Your task to perform on an android device: set the timer Image 0: 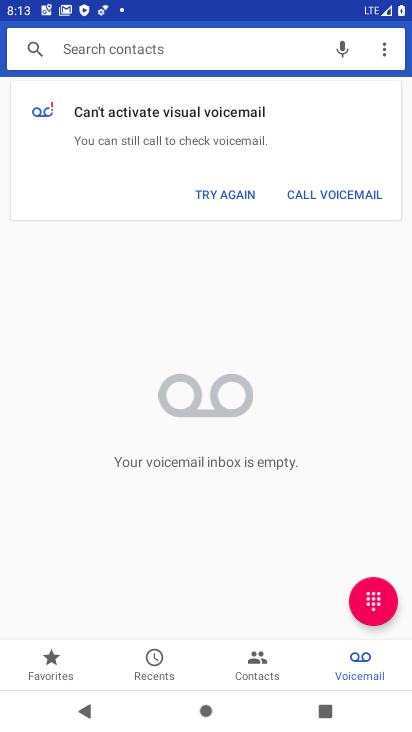
Step 0: press home button
Your task to perform on an android device: set the timer Image 1: 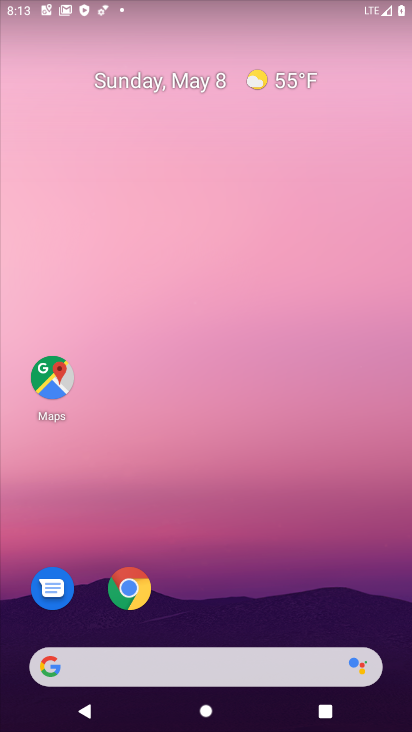
Step 1: drag from (334, 606) to (267, 61)
Your task to perform on an android device: set the timer Image 2: 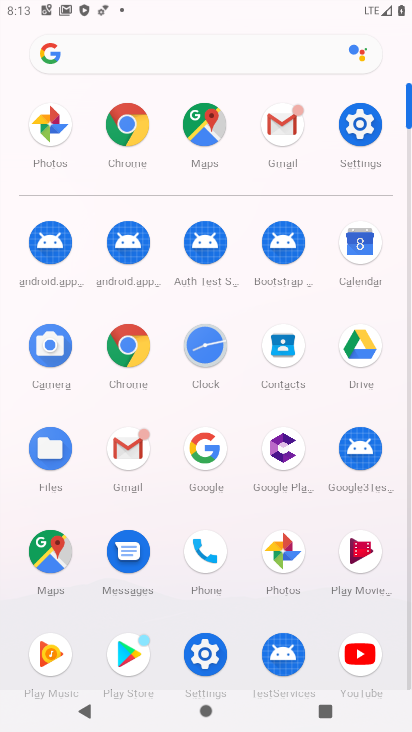
Step 2: click (210, 371)
Your task to perform on an android device: set the timer Image 3: 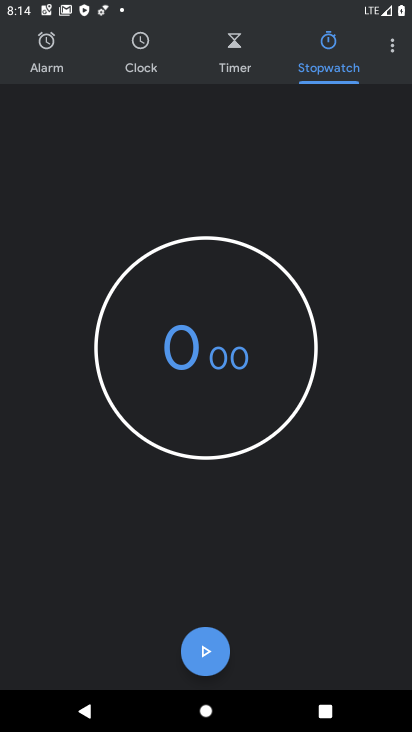
Step 3: click (236, 48)
Your task to perform on an android device: set the timer Image 4: 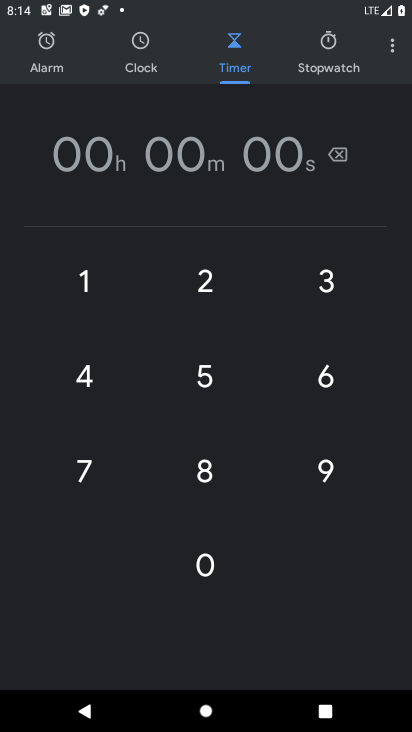
Step 4: click (394, 37)
Your task to perform on an android device: set the timer Image 5: 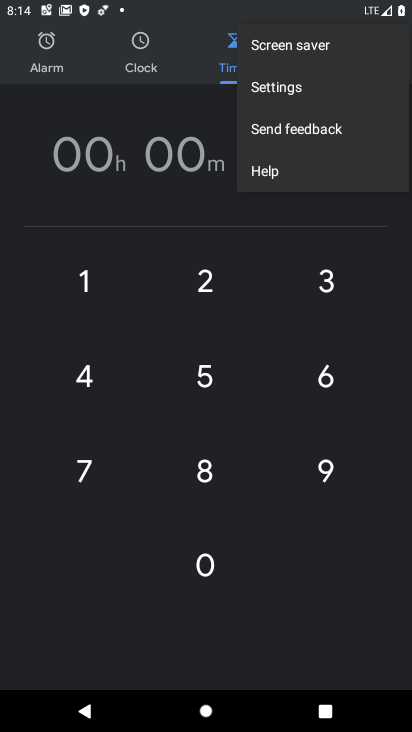
Step 5: click (285, 94)
Your task to perform on an android device: set the timer Image 6: 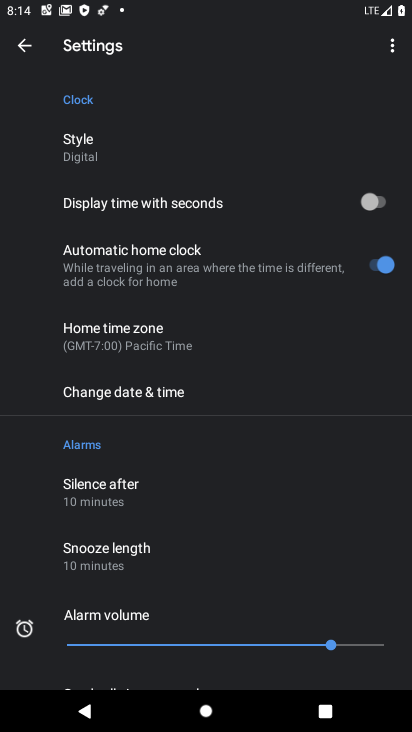
Step 6: click (203, 344)
Your task to perform on an android device: set the timer Image 7: 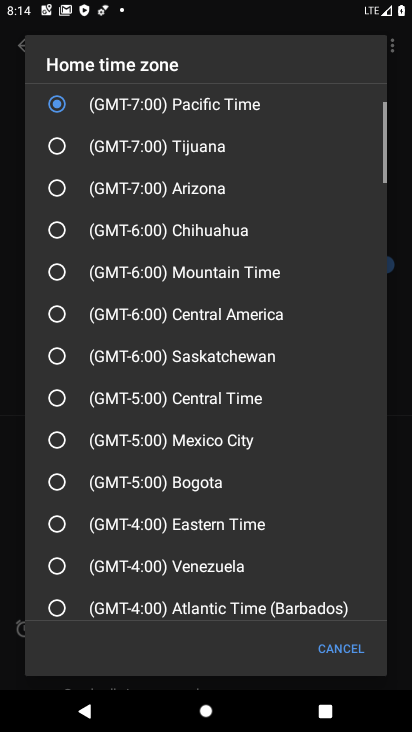
Step 7: click (203, 344)
Your task to perform on an android device: set the timer Image 8: 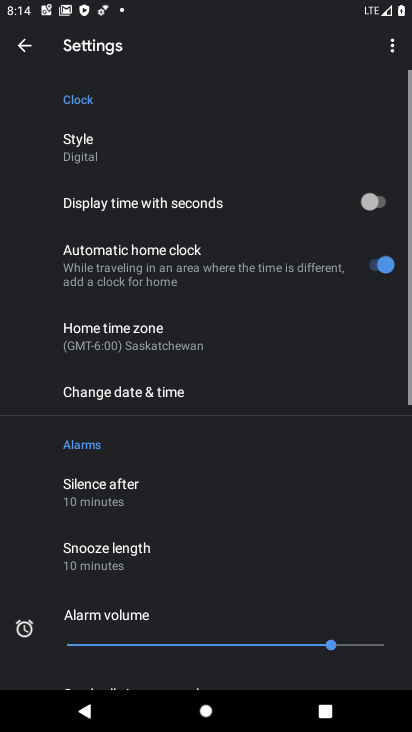
Step 8: task complete